Your task to perform on an android device: Open Google Chrome and click the shortcut for Amazon.com Image 0: 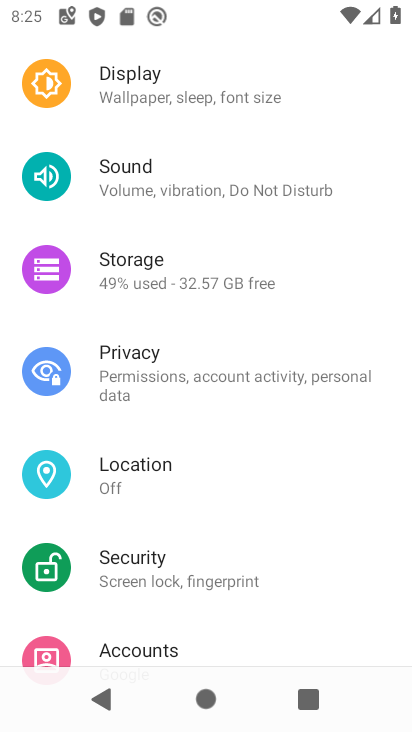
Step 0: press home button
Your task to perform on an android device: Open Google Chrome and click the shortcut for Amazon.com Image 1: 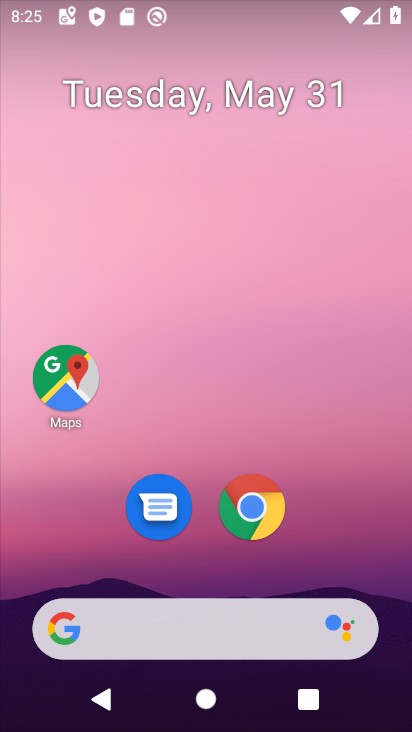
Step 1: click (241, 515)
Your task to perform on an android device: Open Google Chrome and click the shortcut for Amazon.com Image 2: 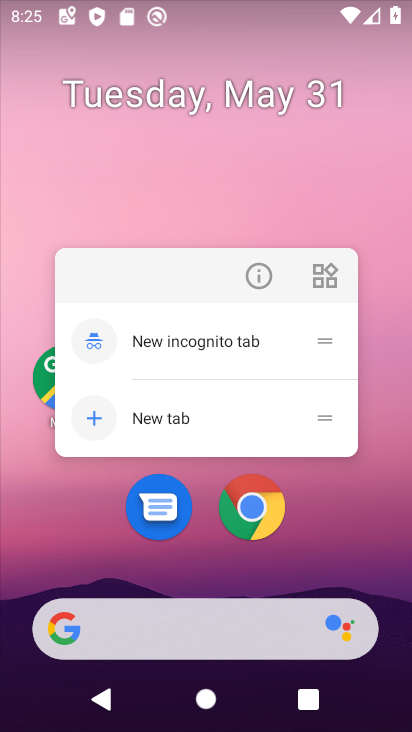
Step 2: click (255, 511)
Your task to perform on an android device: Open Google Chrome and click the shortcut for Amazon.com Image 3: 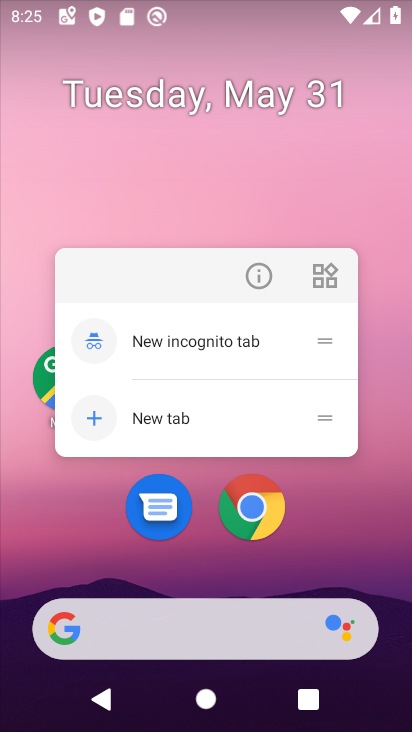
Step 3: click (305, 531)
Your task to perform on an android device: Open Google Chrome and click the shortcut for Amazon.com Image 4: 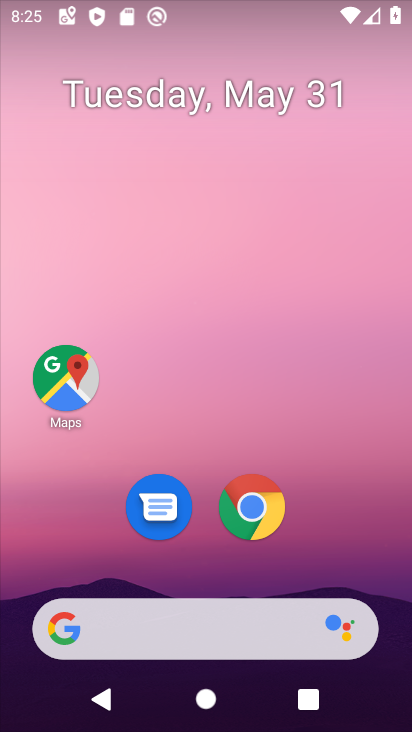
Step 4: drag from (334, 562) to (239, 142)
Your task to perform on an android device: Open Google Chrome and click the shortcut for Amazon.com Image 5: 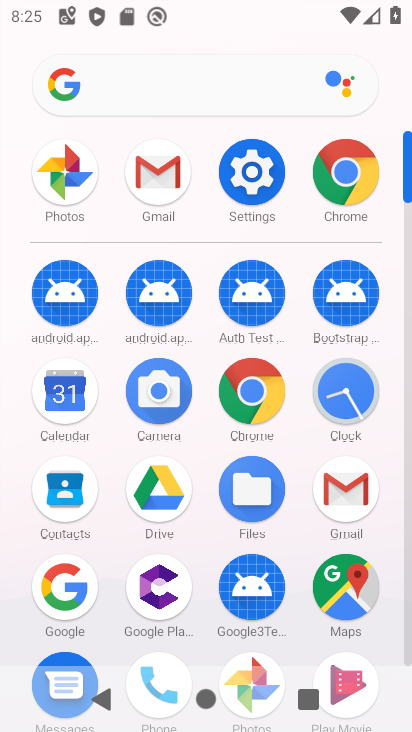
Step 5: click (253, 391)
Your task to perform on an android device: Open Google Chrome and click the shortcut for Amazon.com Image 6: 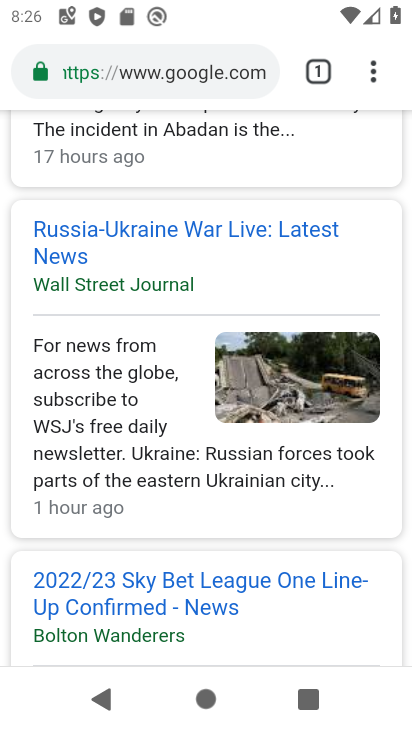
Step 6: click (160, 77)
Your task to perform on an android device: Open Google Chrome and click the shortcut for Amazon.com Image 7: 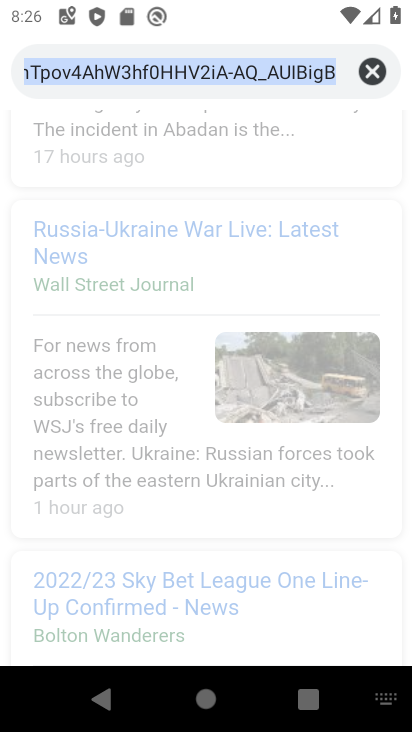
Step 7: type "amazon"
Your task to perform on an android device: Open Google Chrome and click the shortcut for Amazon.com Image 8: 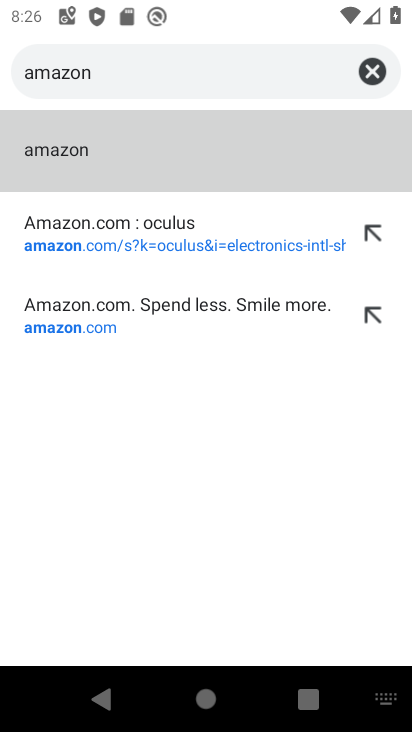
Step 8: click (83, 322)
Your task to perform on an android device: Open Google Chrome and click the shortcut for Amazon.com Image 9: 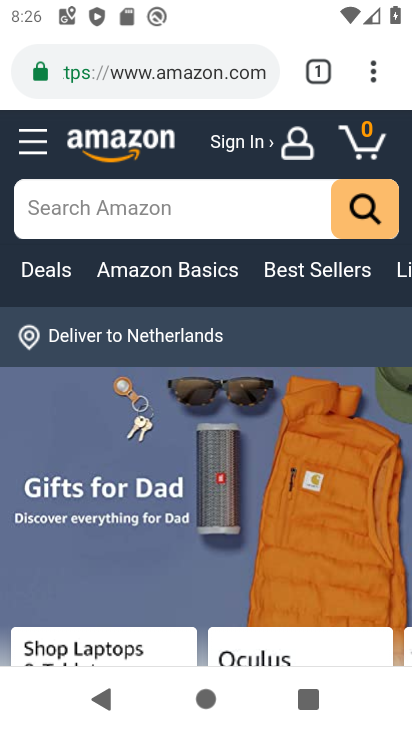
Step 9: task complete